Your task to perform on an android device: Go to location settings Image 0: 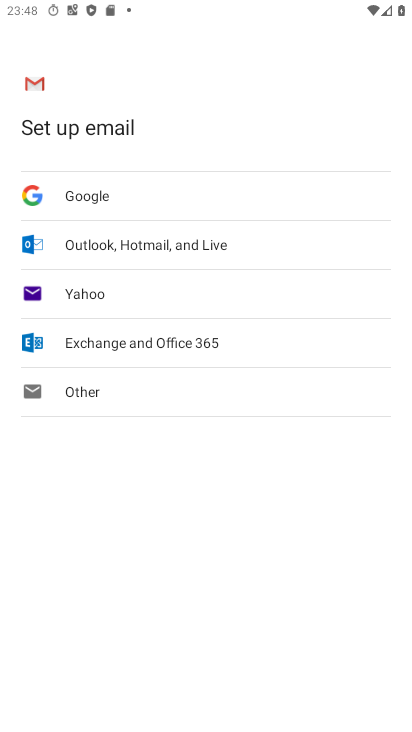
Step 0: press home button
Your task to perform on an android device: Go to location settings Image 1: 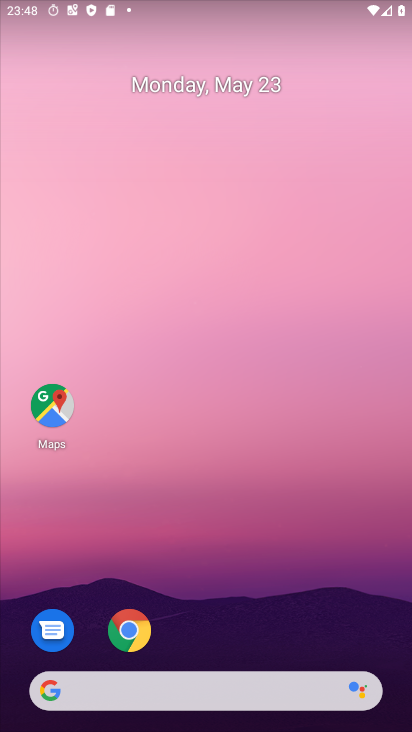
Step 1: drag from (286, 637) to (257, 2)
Your task to perform on an android device: Go to location settings Image 2: 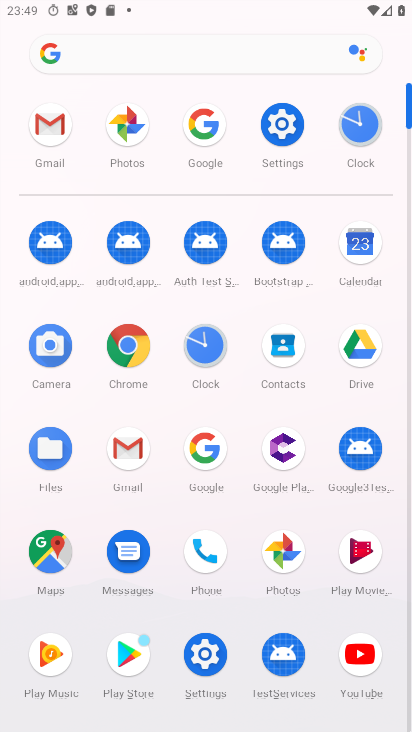
Step 2: click (281, 129)
Your task to perform on an android device: Go to location settings Image 3: 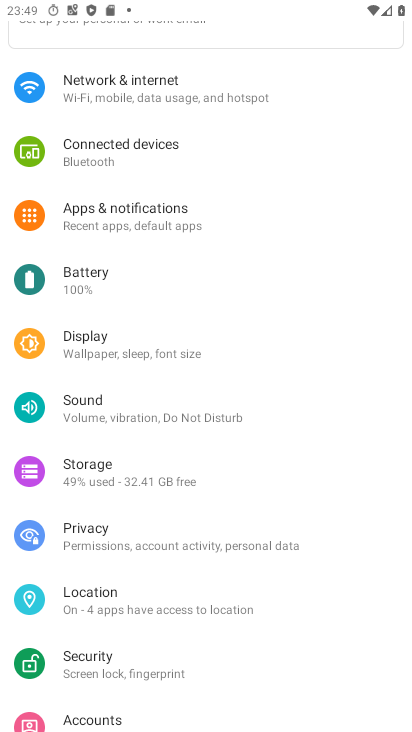
Step 3: click (102, 602)
Your task to perform on an android device: Go to location settings Image 4: 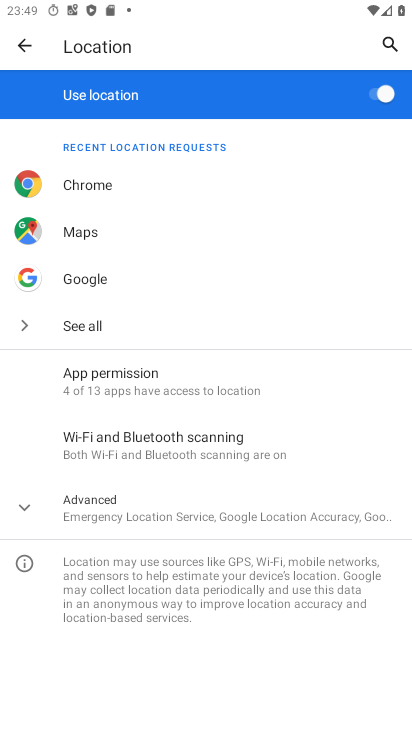
Step 4: task complete